Your task to perform on an android device: change the upload size in google photos Image 0: 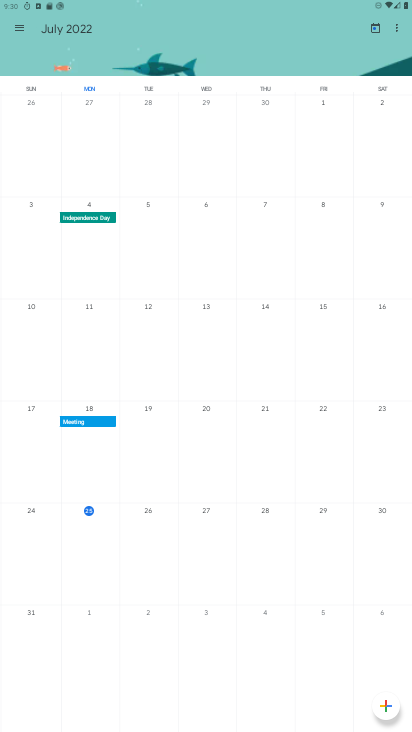
Step 0: press home button
Your task to perform on an android device: change the upload size in google photos Image 1: 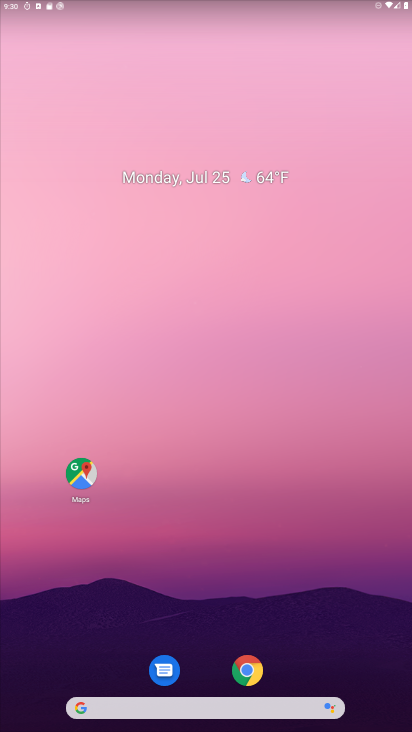
Step 1: drag from (360, 681) to (220, 28)
Your task to perform on an android device: change the upload size in google photos Image 2: 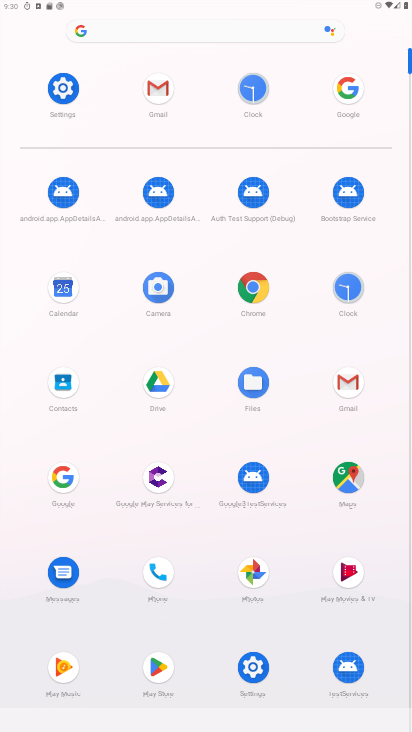
Step 2: click (249, 560)
Your task to perform on an android device: change the upload size in google photos Image 3: 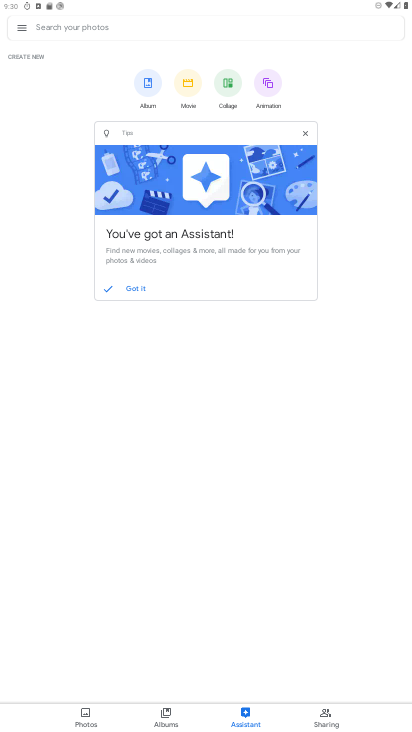
Step 3: click (26, 29)
Your task to perform on an android device: change the upload size in google photos Image 4: 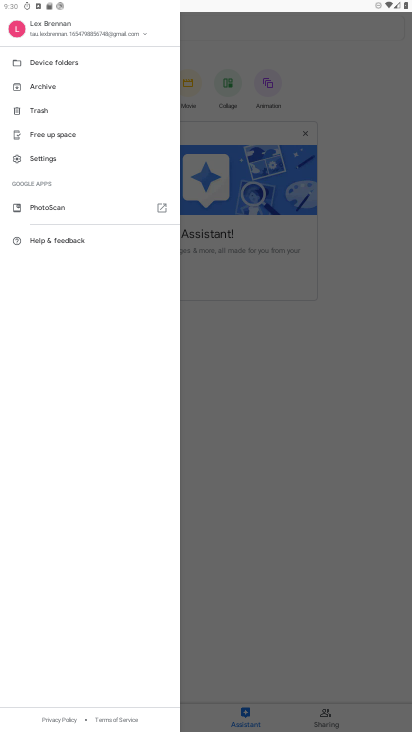
Step 4: click (57, 155)
Your task to perform on an android device: change the upload size in google photos Image 5: 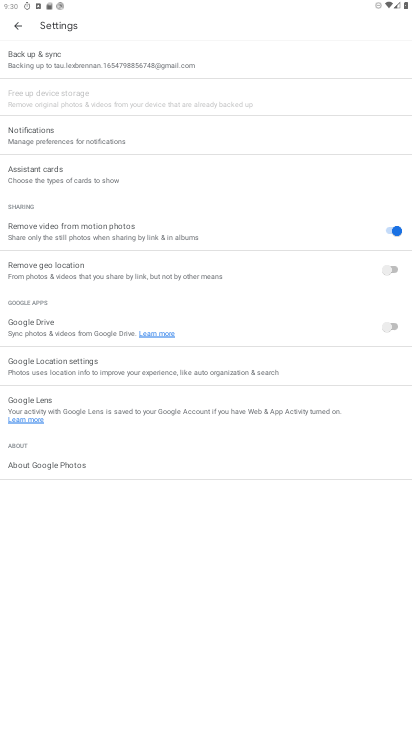
Step 5: click (128, 64)
Your task to perform on an android device: change the upload size in google photos Image 6: 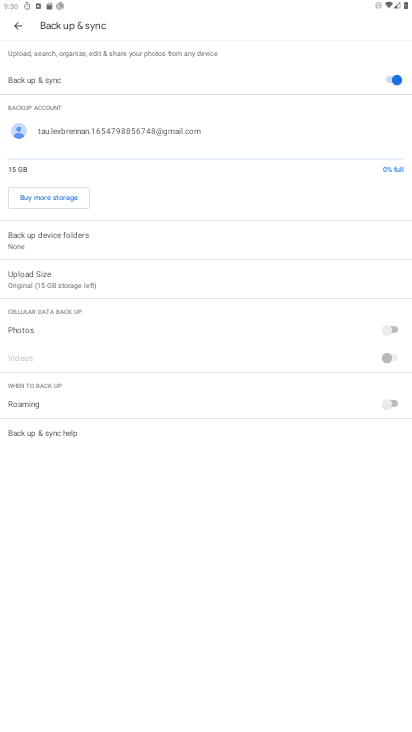
Step 6: click (79, 289)
Your task to perform on an android device: change the upload size in google photos Image 7: 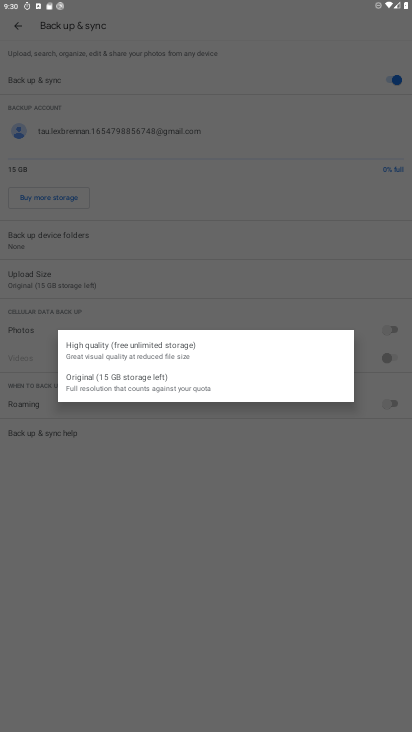
Step 7: click (125, 344)
Your task to perform on an android device: change the upload size in google photos Image 8: 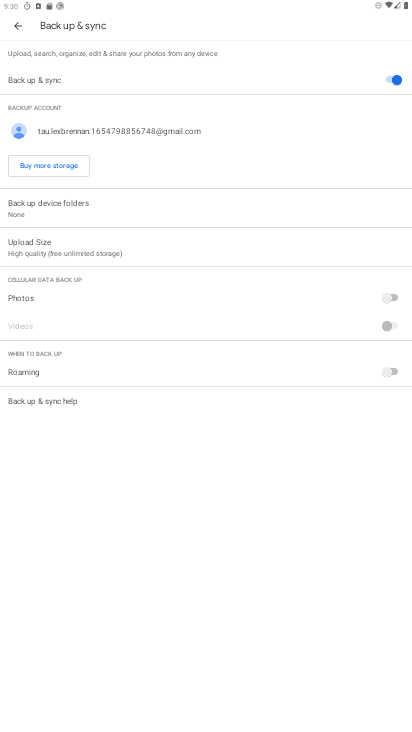
Step 8: task complete